Your task to perform on an android device: change the clock display to digital Image 0: 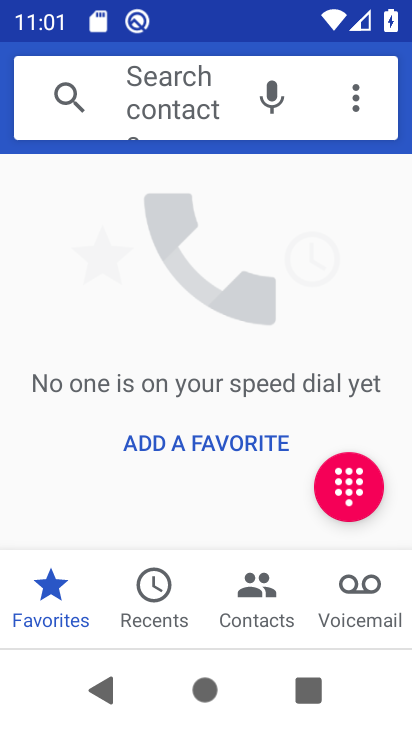
Step 0: press home button
Your task to perform on an android device: change the clock display to digital Image 1: 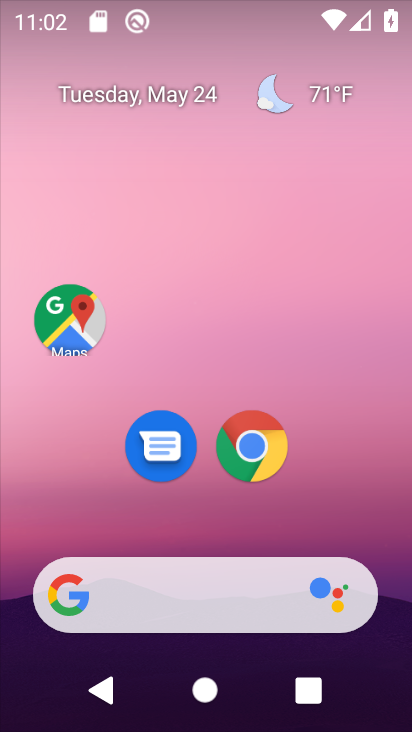
Step 1: drag from (191, 509) to (237, 227)
Your task to perform on an android device: change the clock display to digital Image 2: 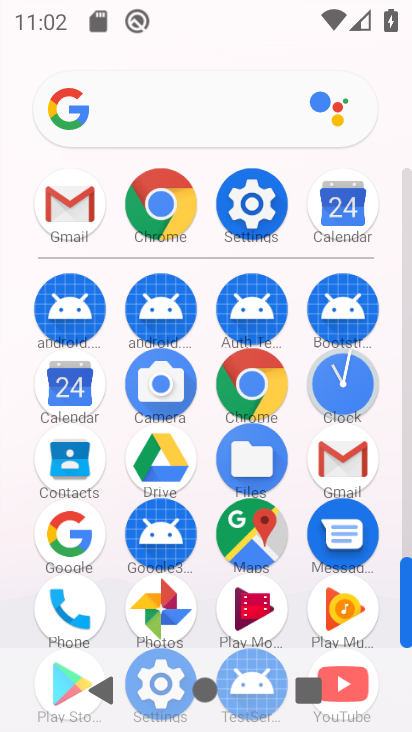
Step 2: drag from (204, 172) to (215, 75)
Your task to perform on an android device: change the clock display to digital Image 3: 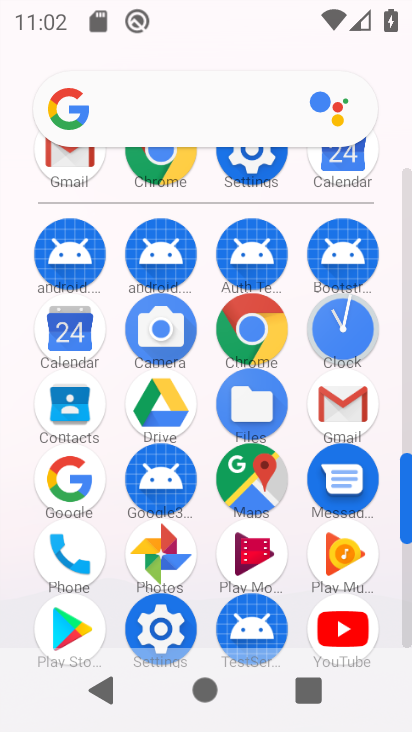
Step 3: click (343, 337)
Your task to perform on an android device: change the clock display to digital Image 4: 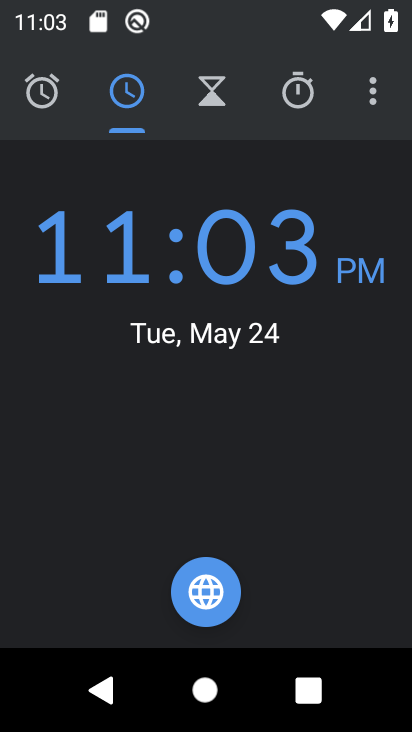
Step 4: click (363, 102)
Your task to perform on an android device: change the clock display to digital Image 5: 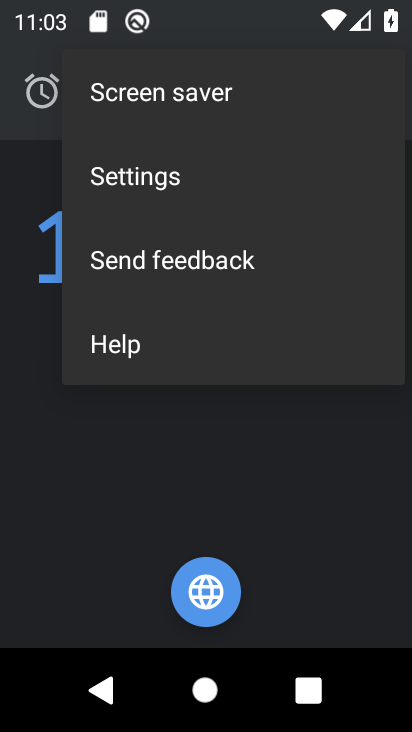
Step 5: click (163, 196)
Your task to perform on an android device: change the clock display to digital Image 6: 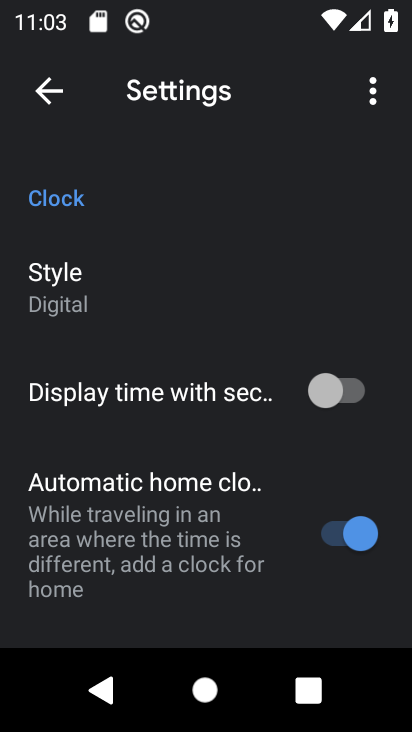
Step 6: click (81, 308)
Your task to perform on an android device: change the clock display to digital Image 7: 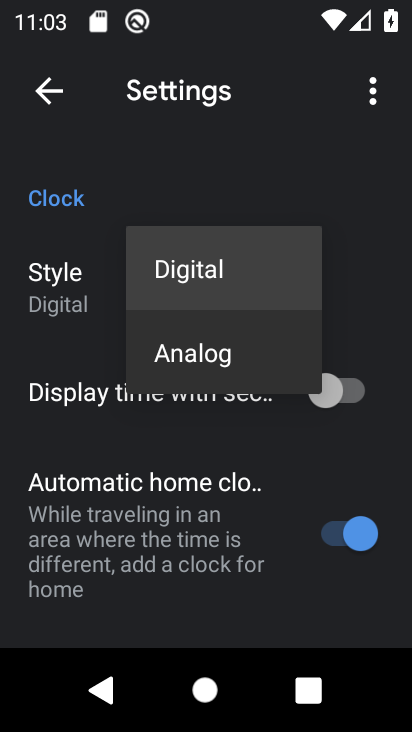
Step 7: click (269, 267)
Your task to perform on an android device: change the clock display to digital Image 8: 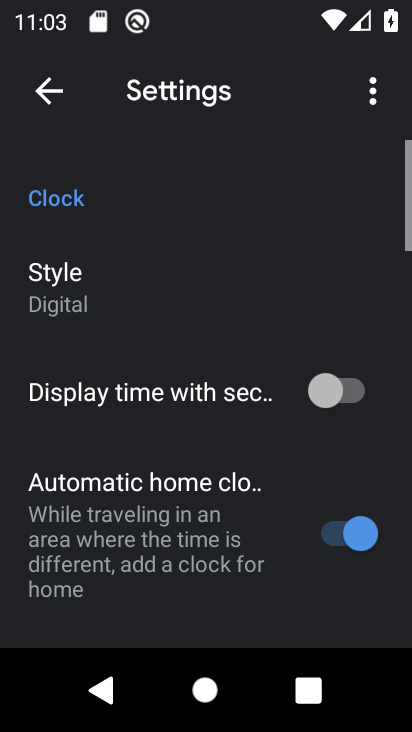
Step 8: task complete